Your task to perform on an android device: change the clock display to digital Image 0: 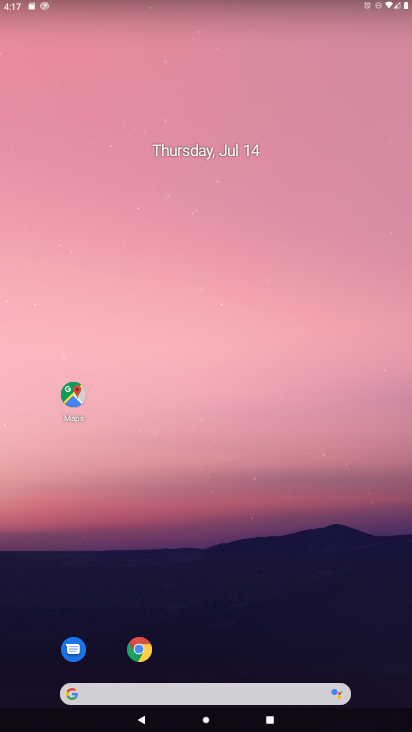
Step 0: drag from (180, 656) to (200, 250)
Your task to perform on an android device: change the clock display to digital Image 1: 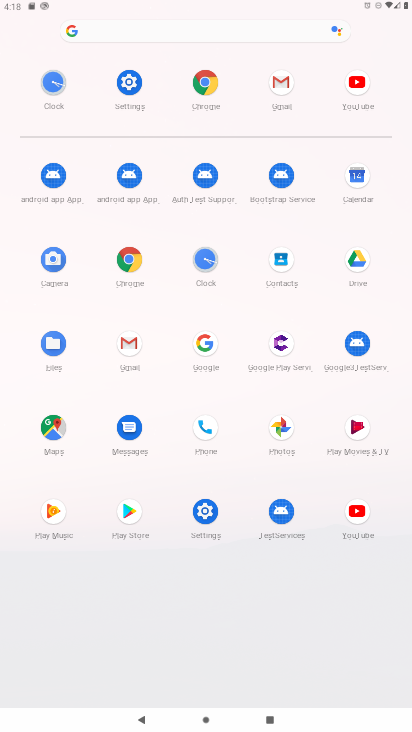
Step 1: click (196, 259)
Your task to perform on an android device: change the clock display to digital Image 2: 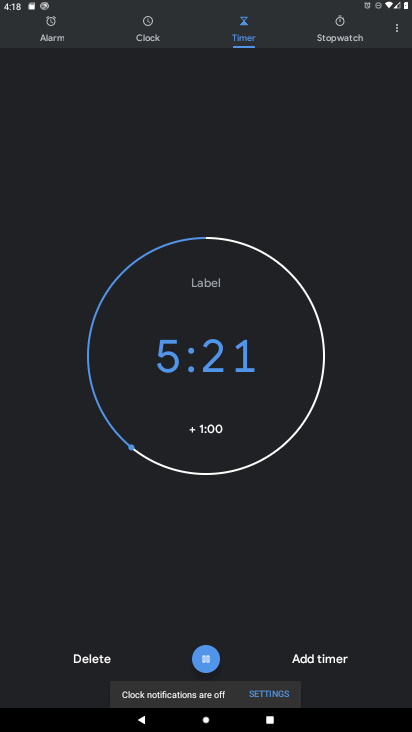
Step 2: click (398, 35)
Your task to perform on an android device: change the clock display to digital Image 3: 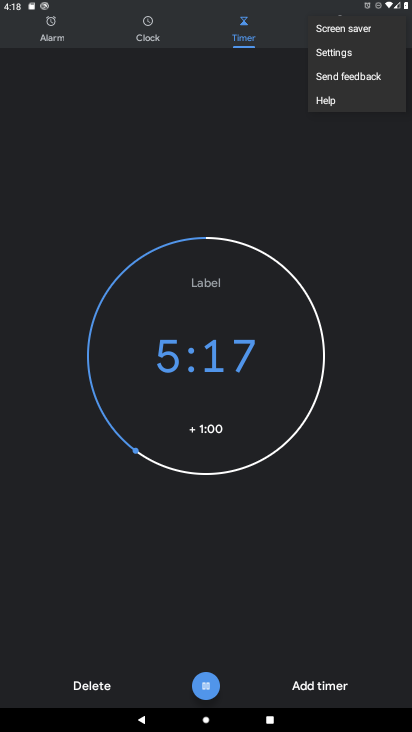
Step 3: click (351, 57)
Your task to perform on an android device: change the clock display to digital Image 4: 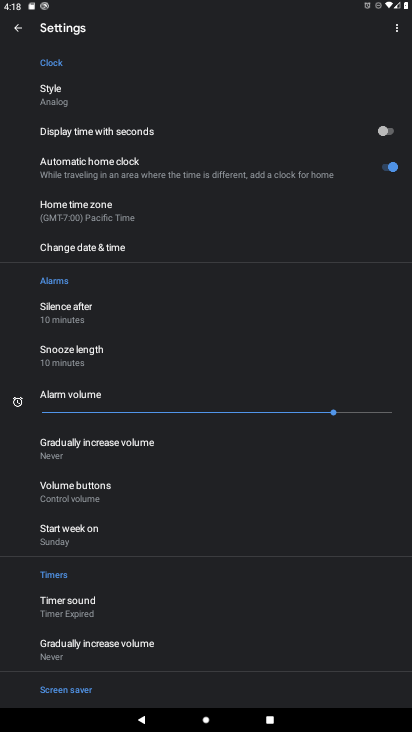
Step 4: click (57, 99)
Your task to perform on an android device: change the clock display to digital Image 5: 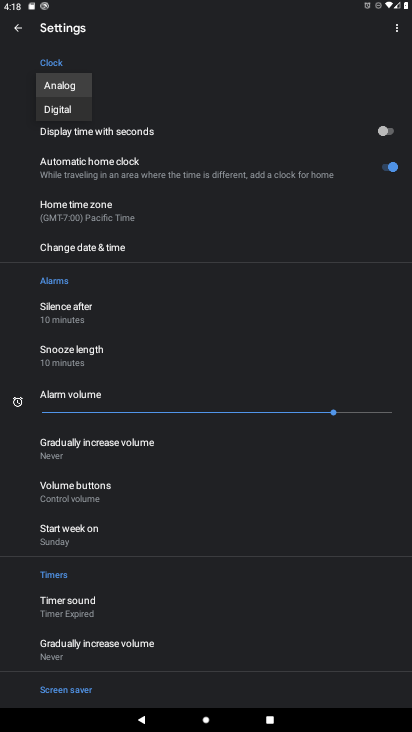
Step 5: click (72, 111)
Your task to perform on an android device: change the clock display to digital Image 6: 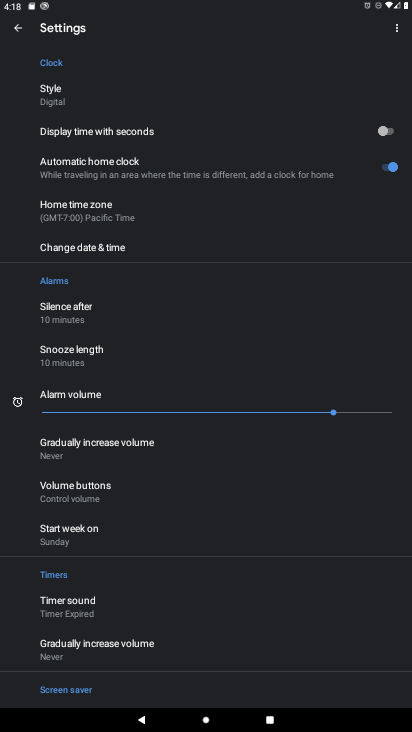
Step 6: task complete